Your task to perform on an android device: create a new album in the google photos Image 0: 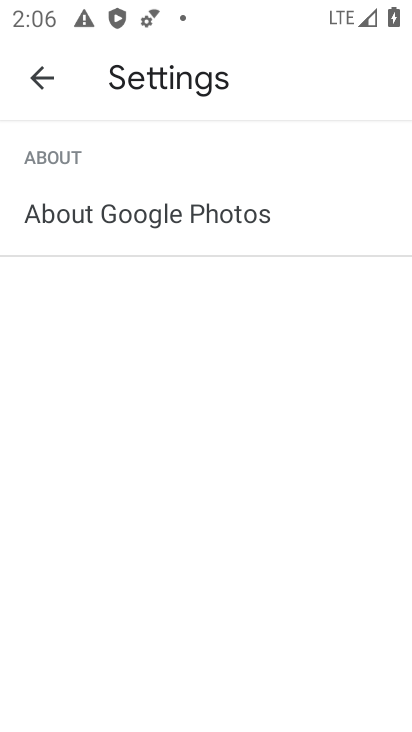
Step 0: press back button
Your task to perform on an android device: create a new album in the google photos Image 1: 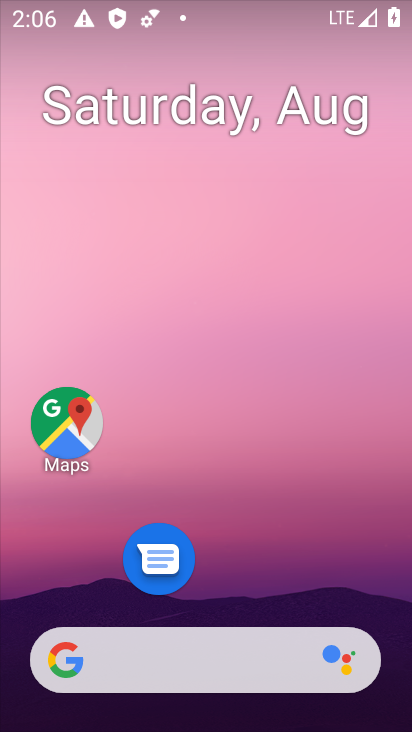
Step 1: drag from (238, 619) to (284, 31)
Your task to perform on an android device: create a new album in the google photos Image 2: 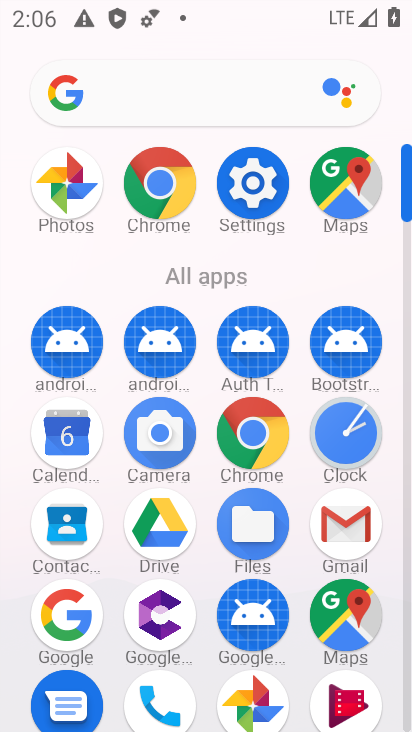
Step 2: click (243, 696)
Your task to perform on an android device: create a new album in the google photos Image 3: 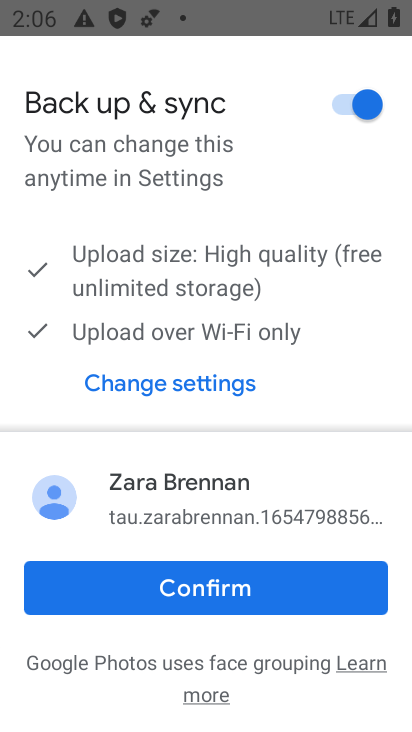
Step 3: click (244, 603)
Your task to perform on an android device: create a new album in the google photos Image 4: 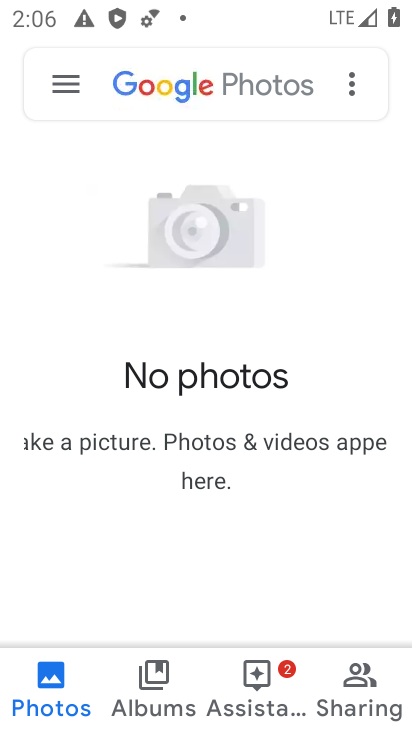
Step 4: click (151, 662)
Your task to perform on an android device: create a new album in the google photos Image 5: 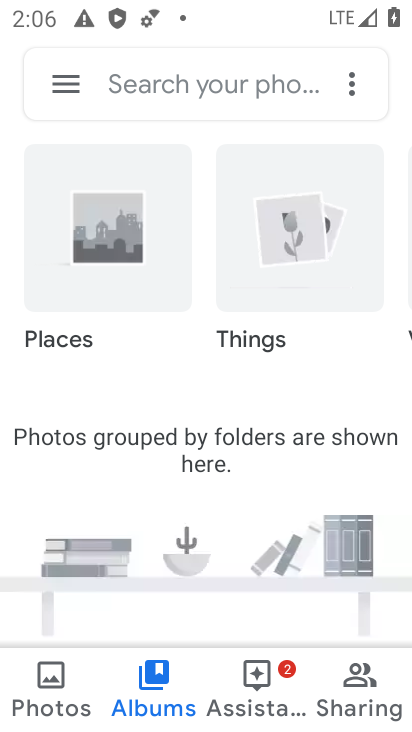
Step 5: task complete